Your task to perform on an android device: toggle airplane mode Image 0: 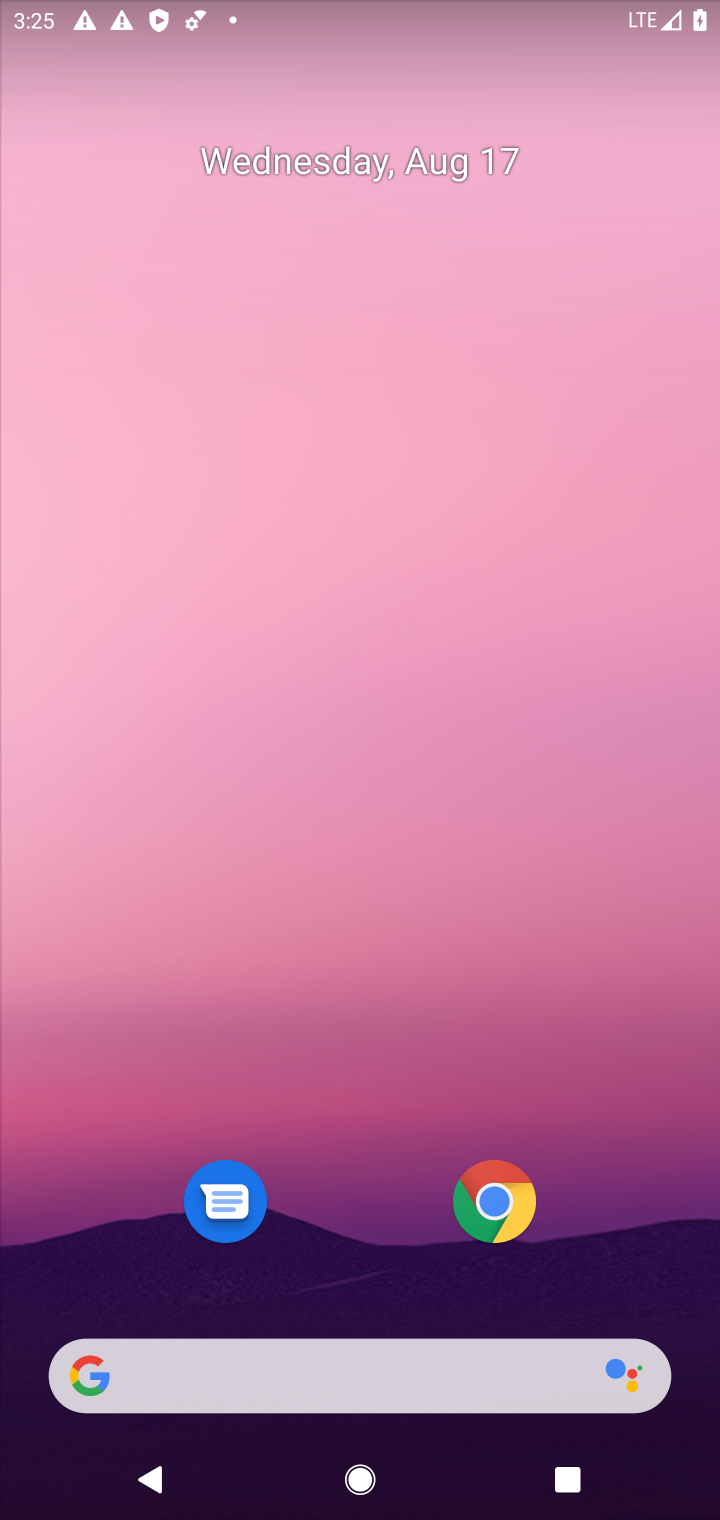
Step 0: drag from (389, 984) to (512, 39)
Your task to perform on an android device: toggle airplane mode Image 1: 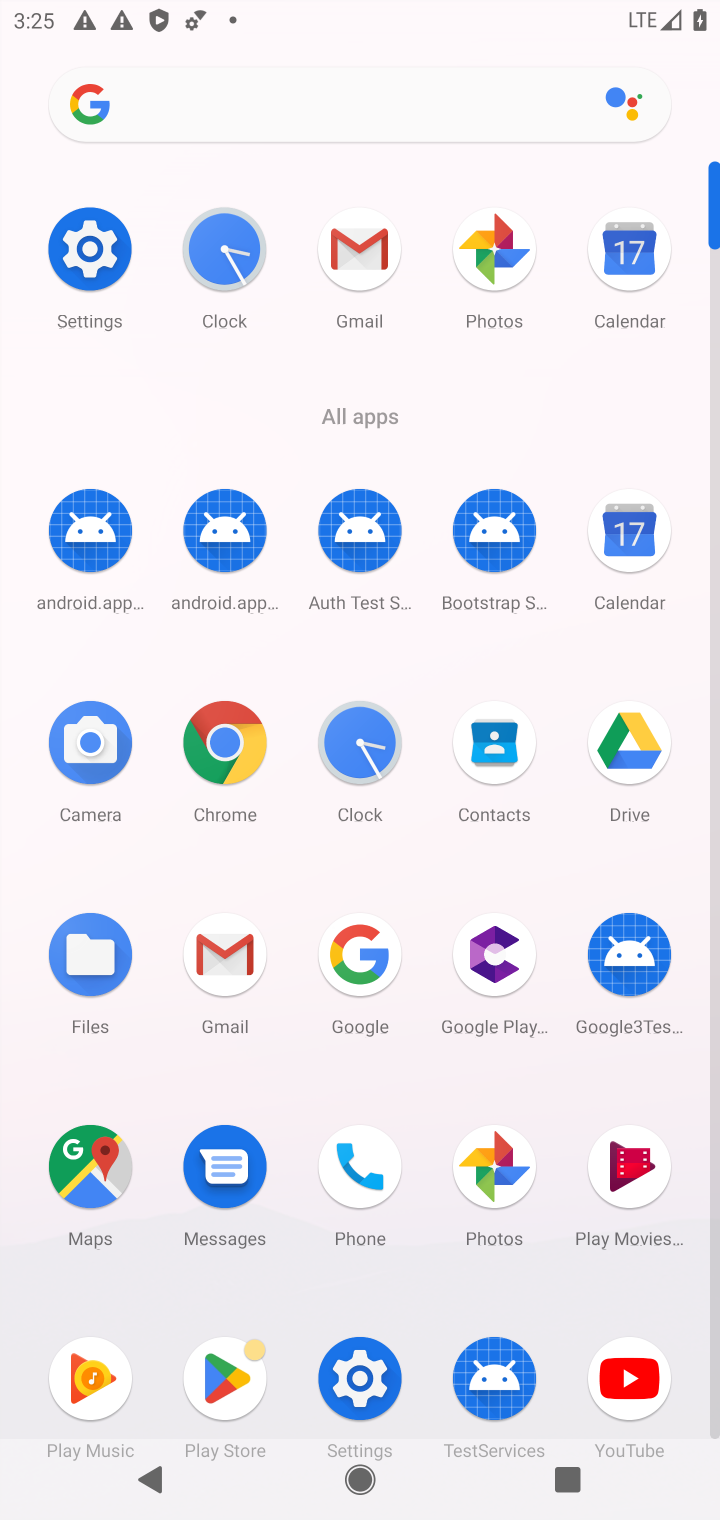
Step 1: click (75, 259)
Your task to perform on an android device: toggle airplane mode Image 2: 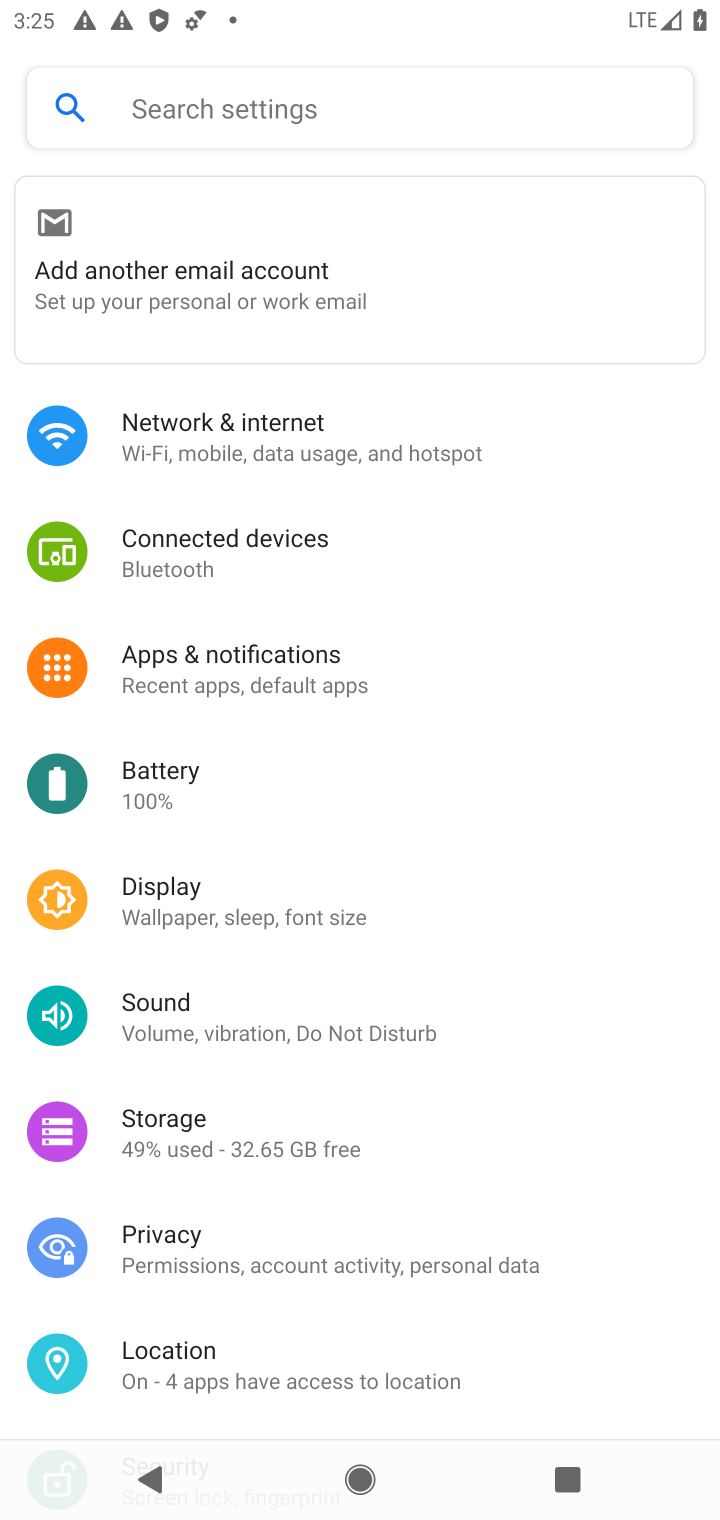
Step 2: click (318, 441)
Your task to perform on an android device: toggle airplane mode Image 3: 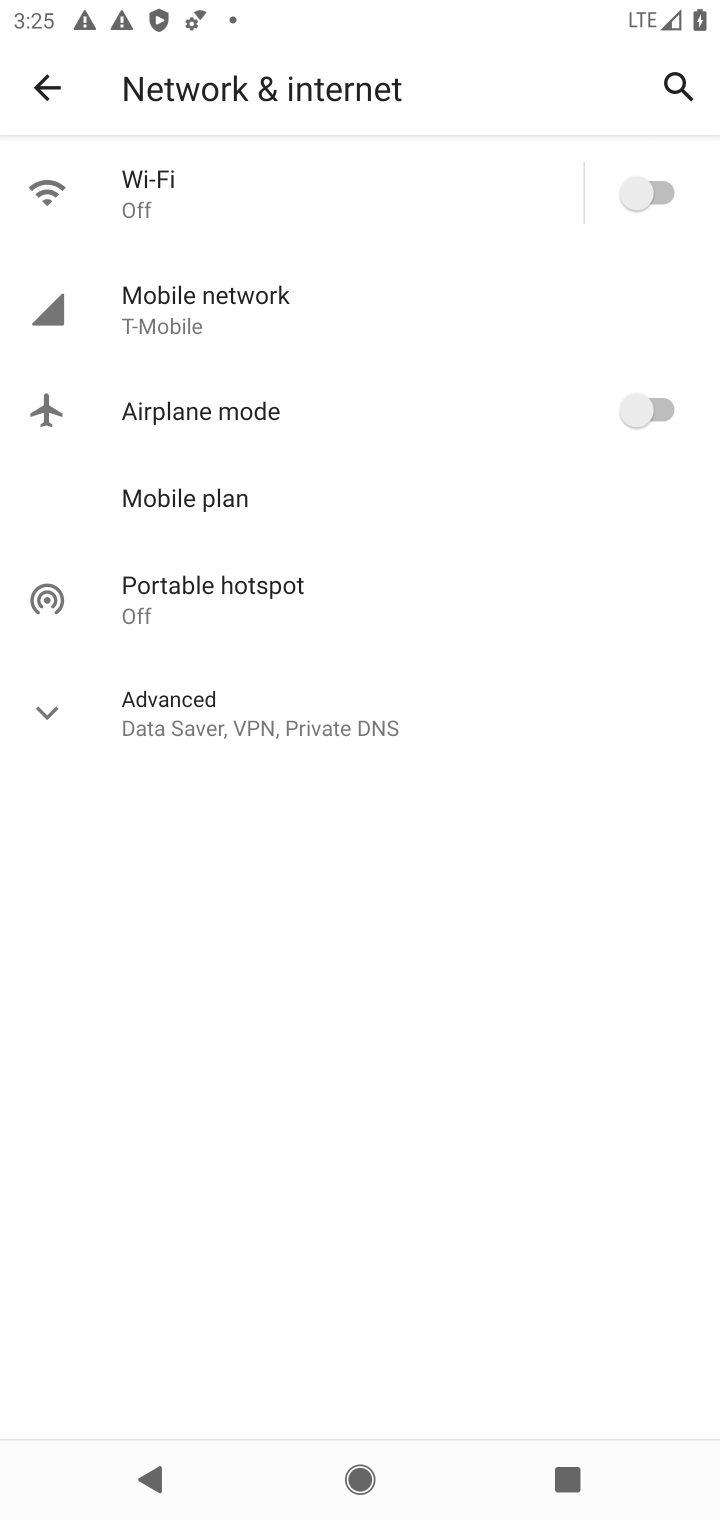
Step 3: click (590, 411)
Your task to perform on an android device: toggle airplane mode Image 4: 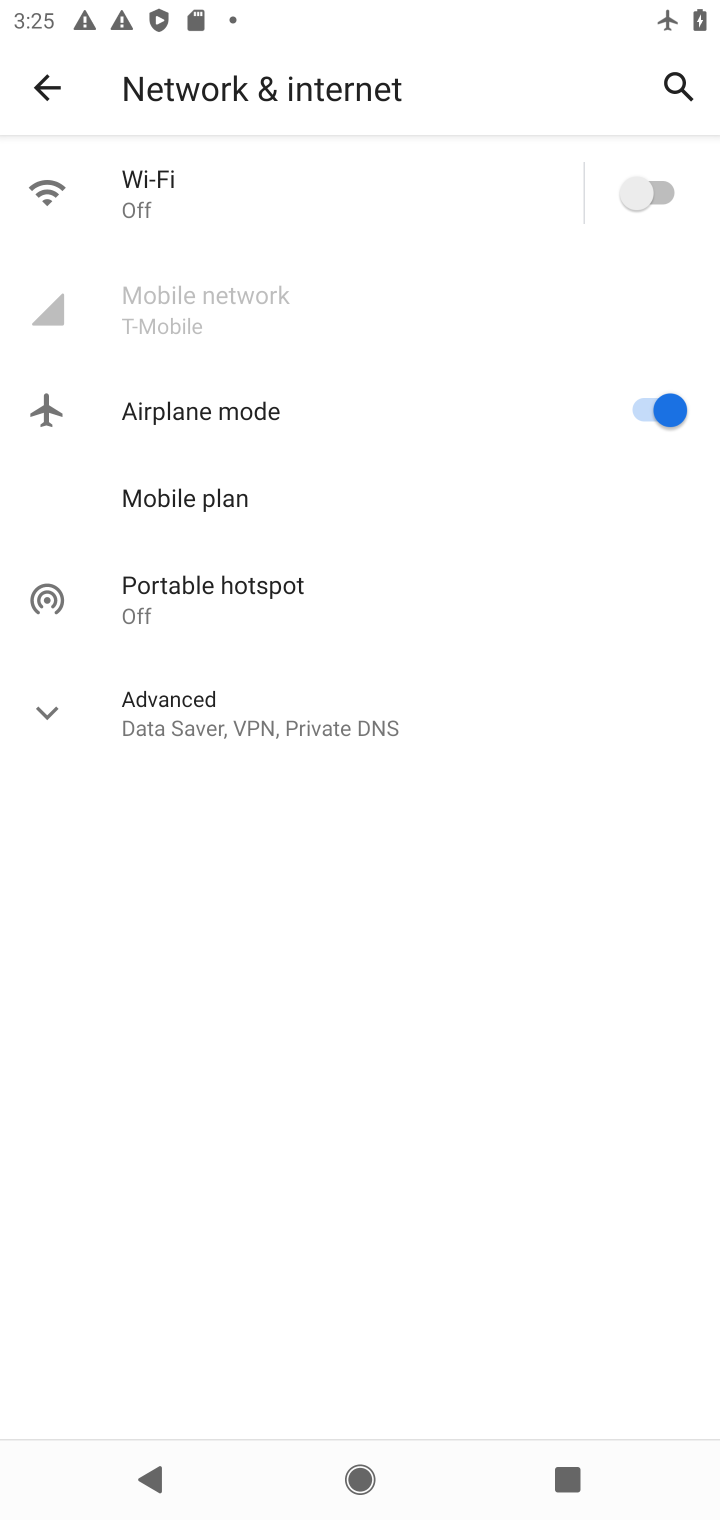
Step 4: task complete